Your task to perform on an android device: What's the price of the Sony TV? Image 0: 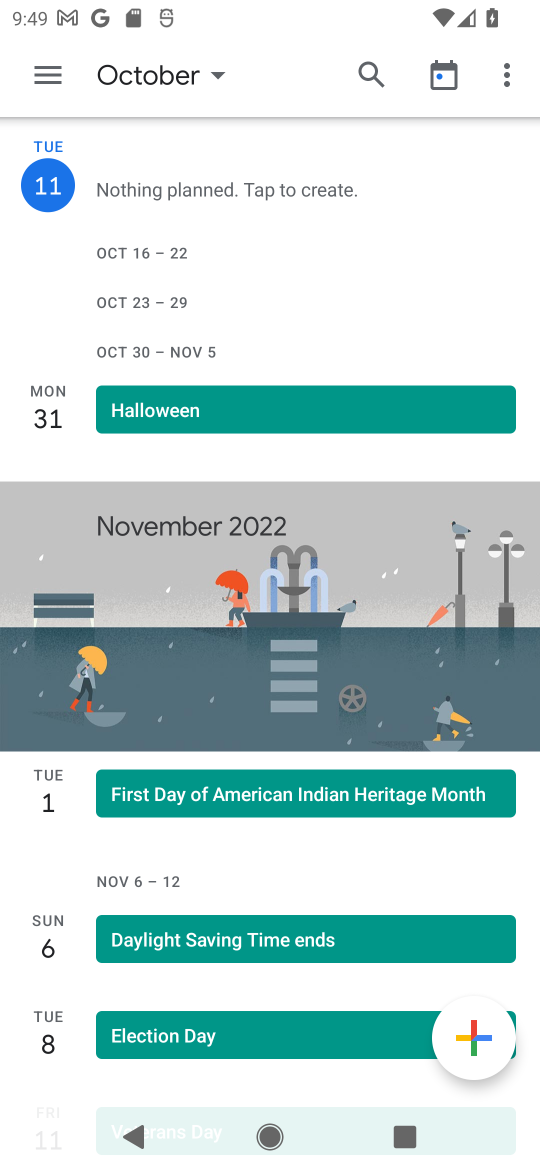
Step 0: press home button
Your task to perform on an android device: What's the price of the Sony TV? Image 1: 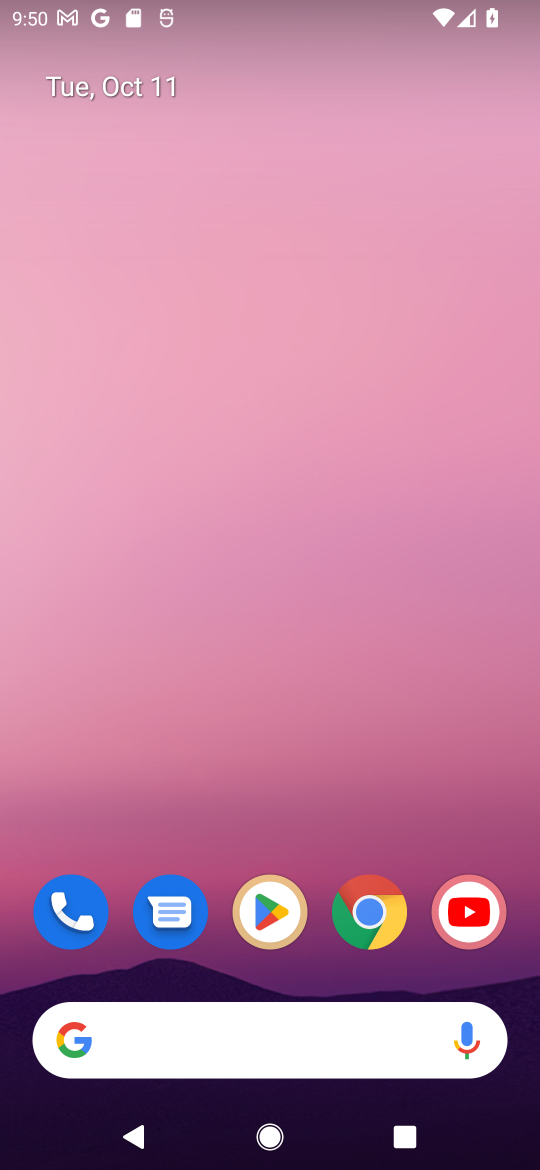
Step 1: click (369, 913)
Your task to perform on an android device: What's the price of the Sony TV? Image 2: 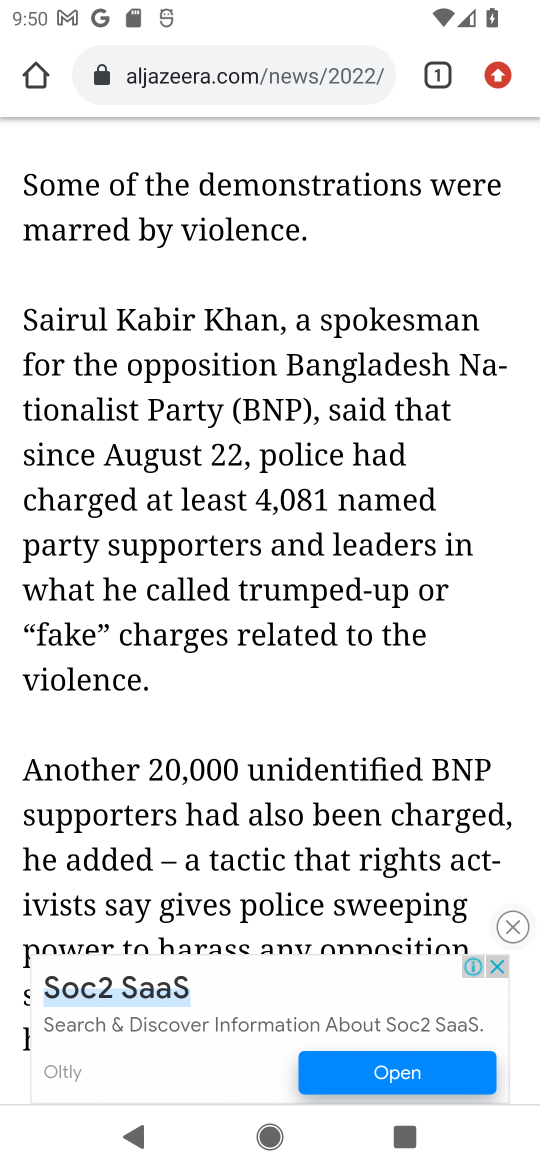
Step 2: click (201, 57)
Your task to perform on an android device: What's the price of the Sony TV? Image 3: 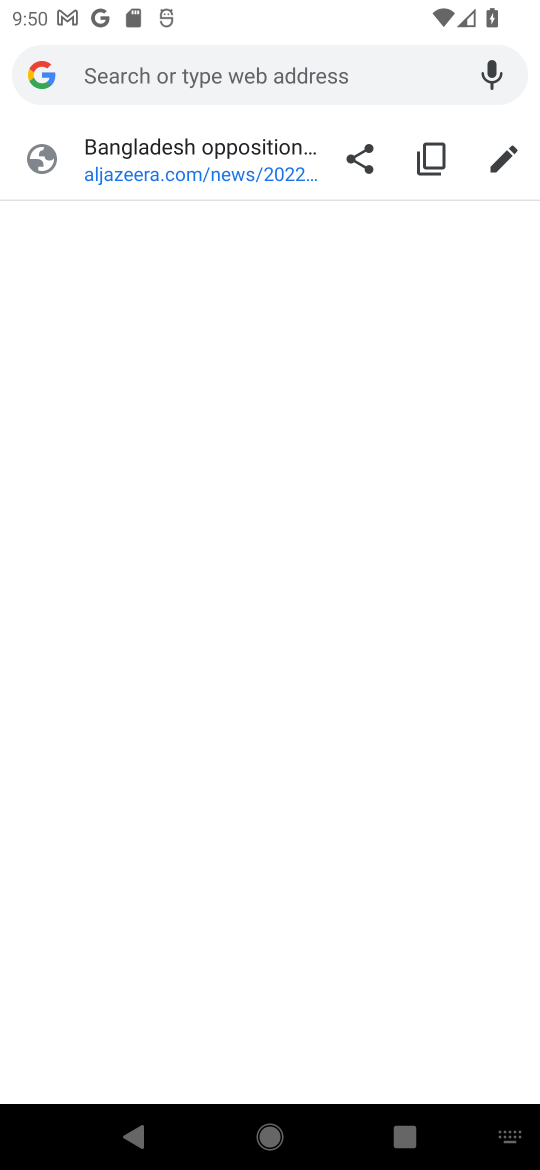
Step 3: type "price of the Sony TV"
Your task to perform on an android device: What's the price of the Sony TV? Image 4: 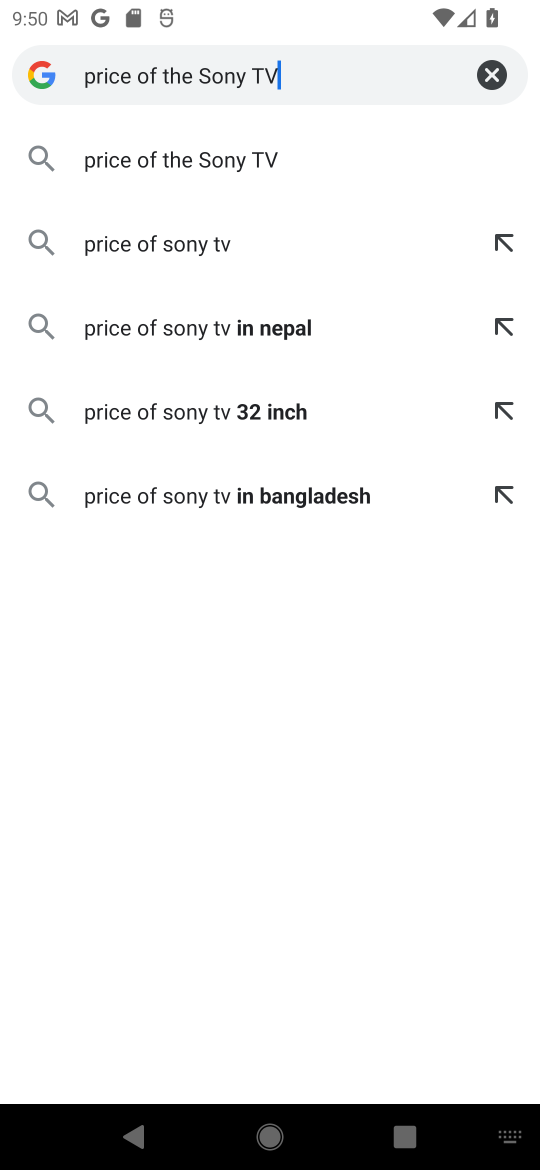
Step 4: click (158, 150)
Your task to perform on an android device: What's the price of the Sony TV? Image 5: 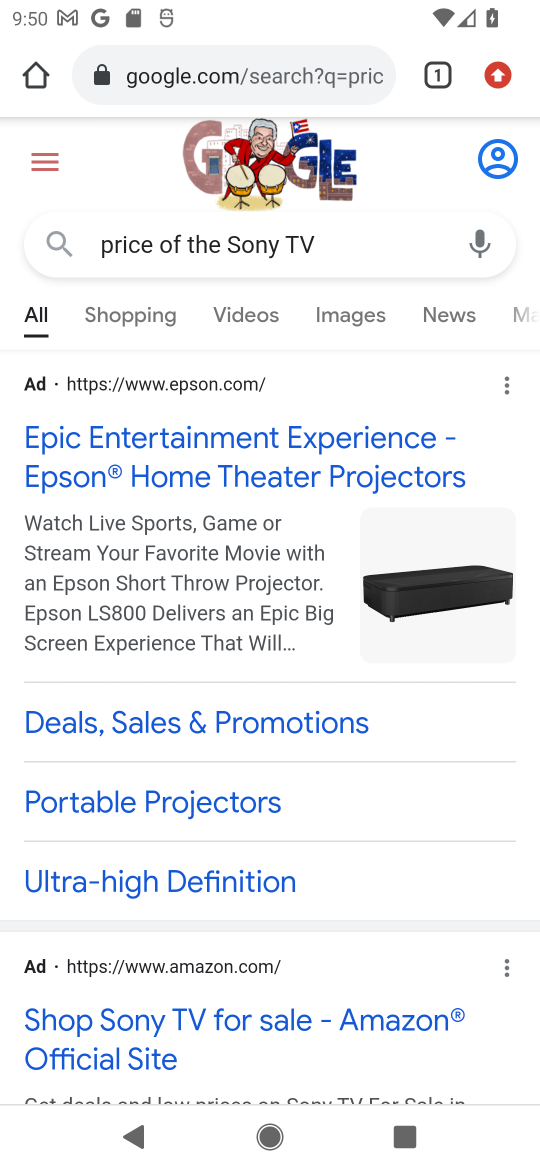
Step 5: drag from (330, 917) to (331, 343)
Your task to perform on an android device: What's the price of the Sony TV? Image 6: 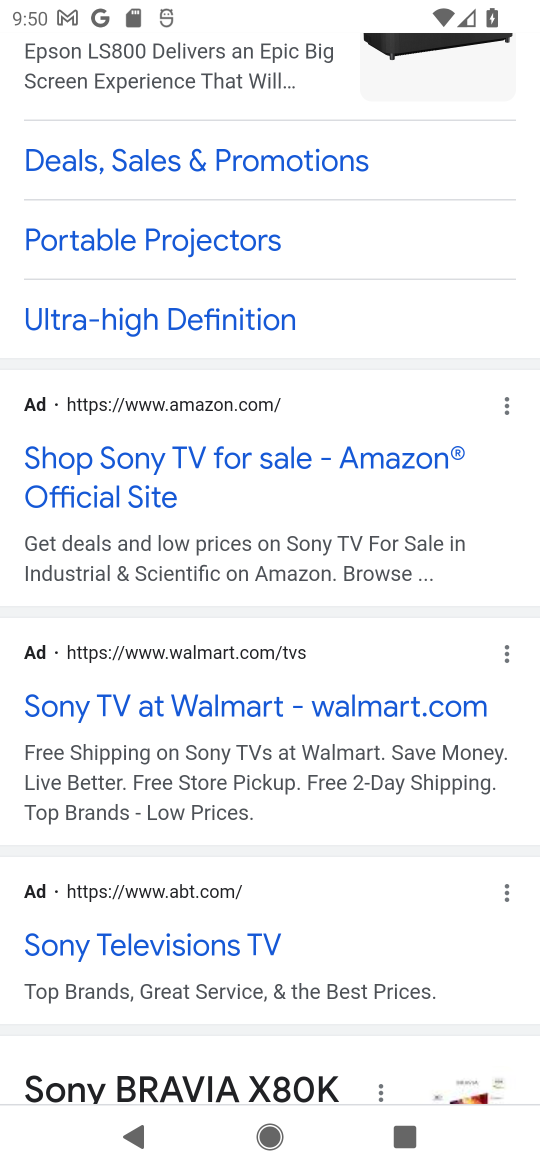
Step 6: click (101, 460)
Your task to perform on an android device: What's the price of the Sony TV? Image 7: 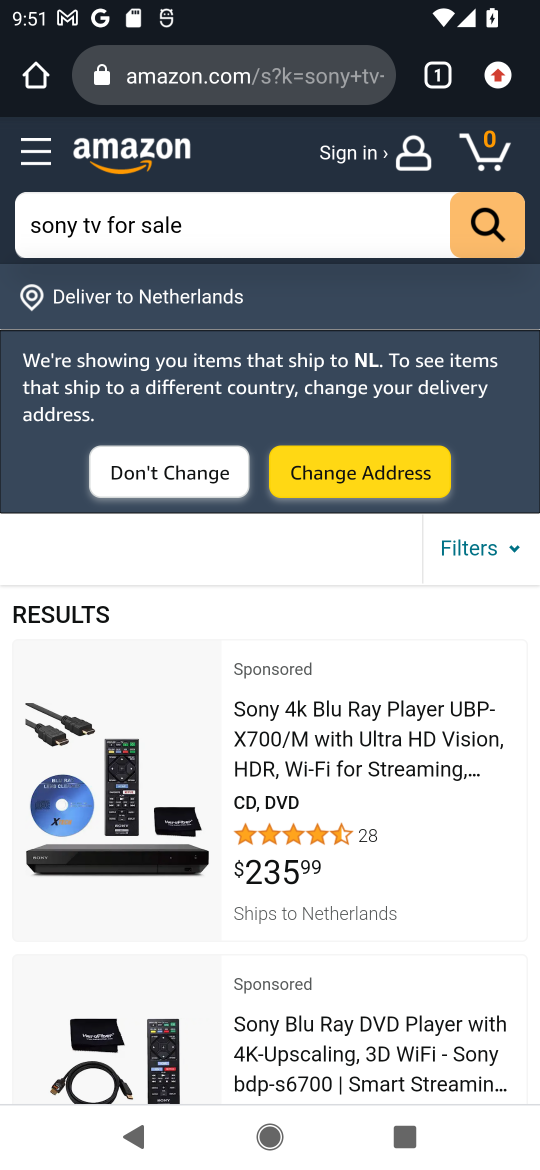
Step 7: click (321, 464)
Your task to perform on an android device: What's the price of the Sony TV? Image 8: 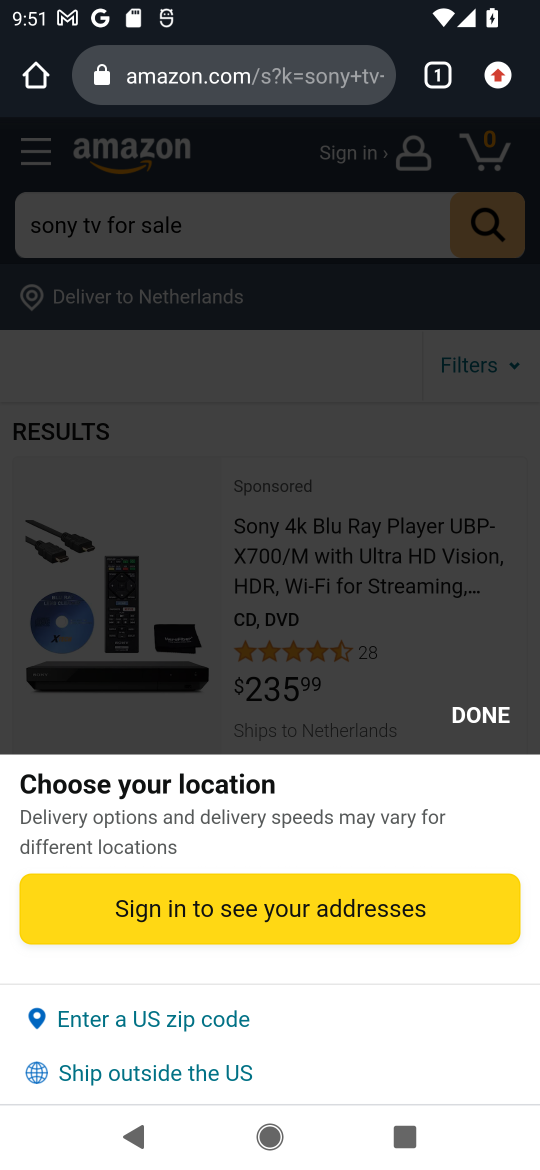
Step 8: click (494, 715)
Your task to perform on an android device: What's the price of the Sony TV? Image 9: 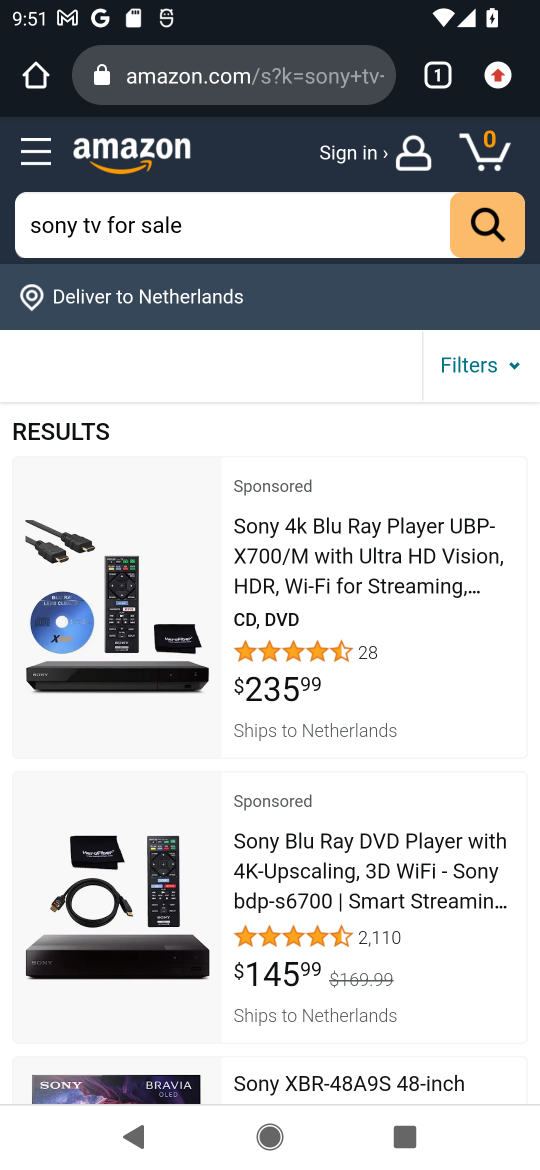
Step 9: drag from (360, 801) to (341, 249)
Your task to perform on an android device: What's the price of the Sony TV? Image 10: 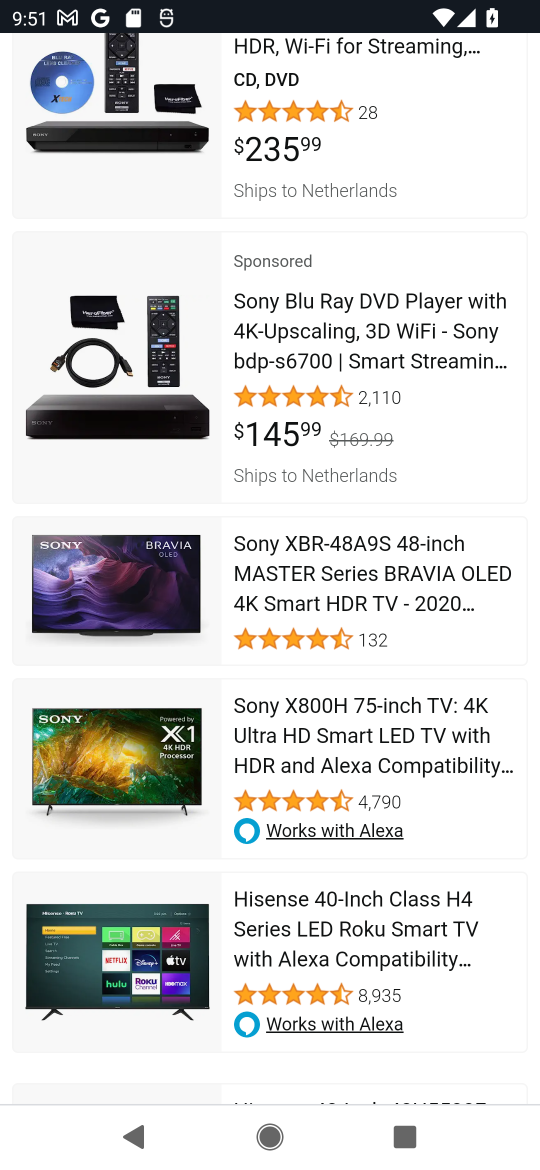
Step 10: drag from (344, 674) to (367, 280)
Your task to perform on an android device: What's the price of the Sony TV? Image 11: 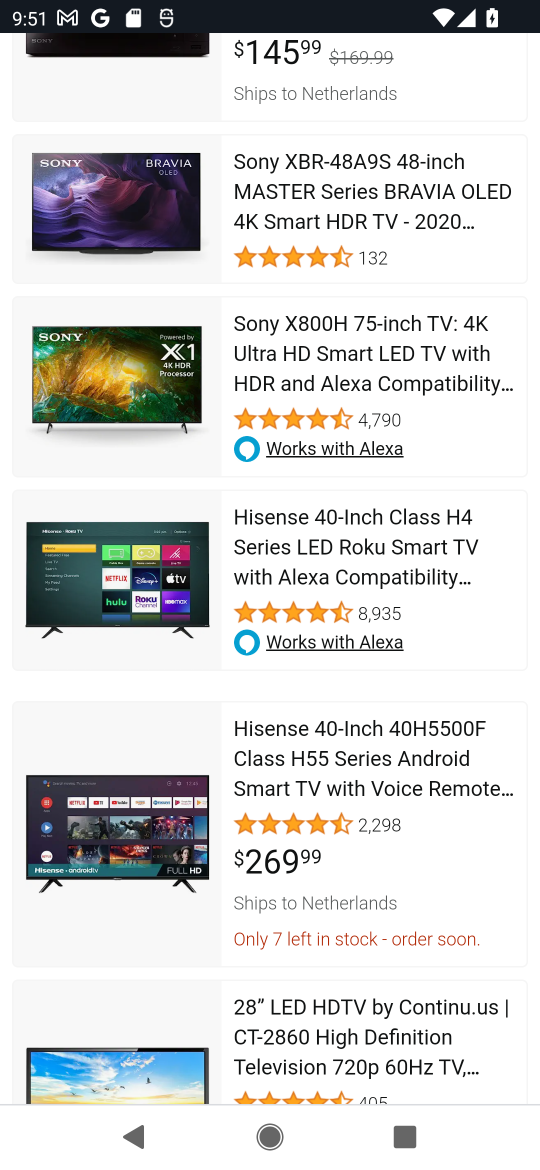
Step 11: click (283, 335)
Your task to perform on an android device: What's the price of the Sony TV? Image 12: 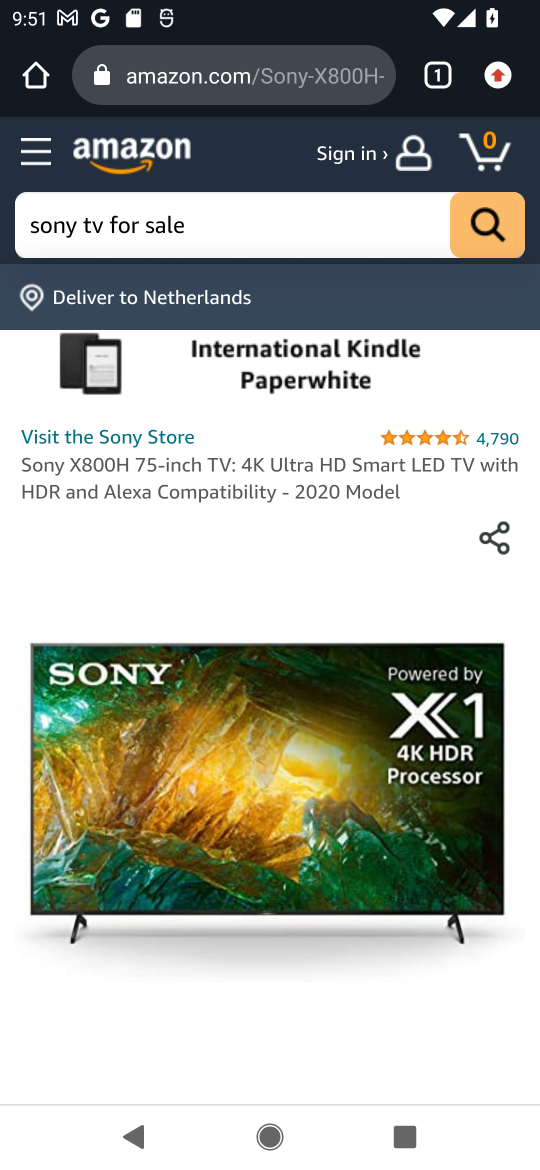
Step 12: task complete